Your task to perform on an android device: install app "Google Chat" Image 0: 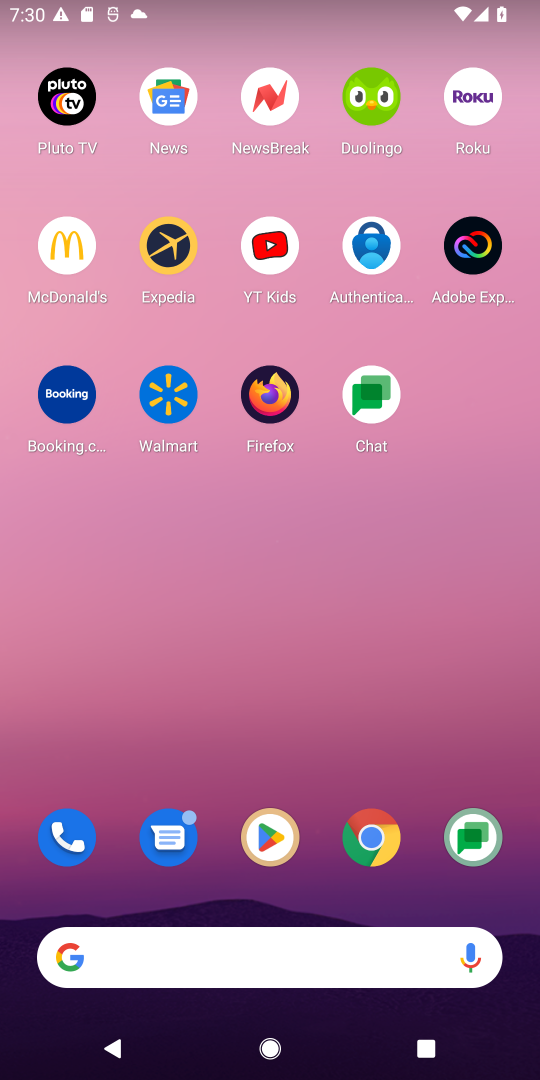
Step 0: drag from (220, 880) to (311, 75)
Your task to perform on an android device: install app "Google Chat" Image 1: 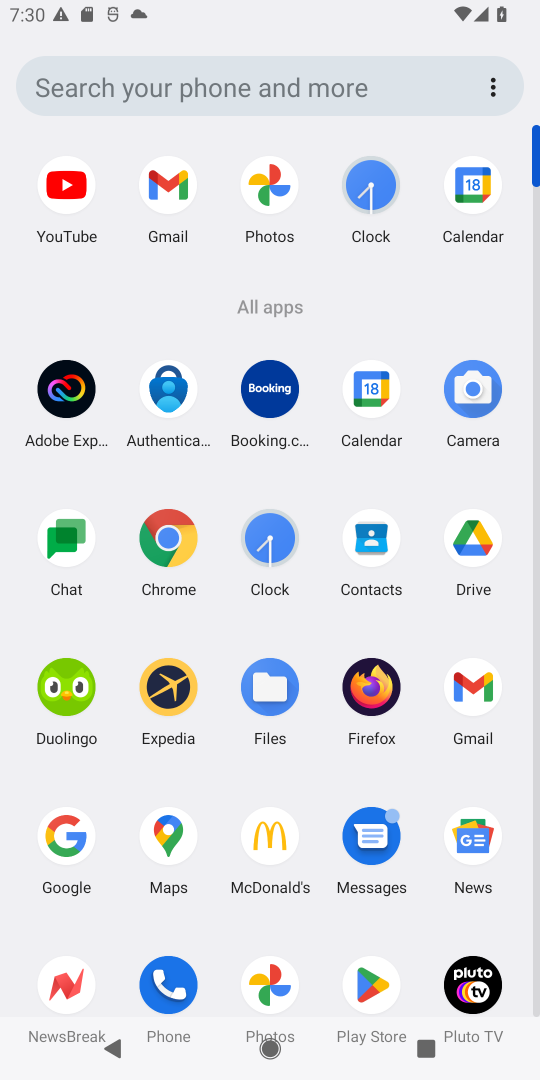
Step 1: click (364, 976)
Your task to perform on an android device: install app "Google Chat" Image 2: 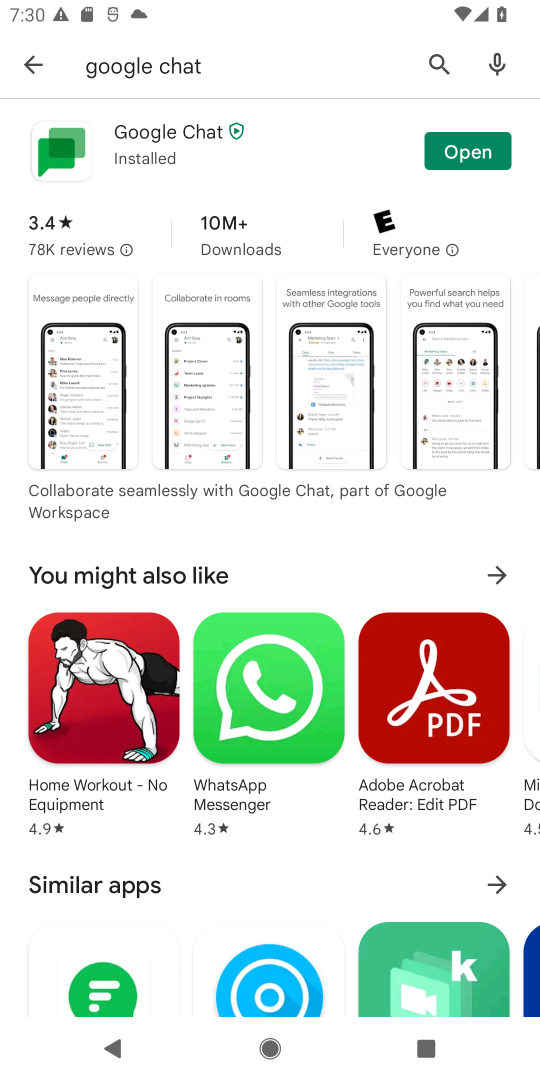
Step 2: task complete